Your task to perform on an android device: turn off priority inbox in the gmail app Image 0: 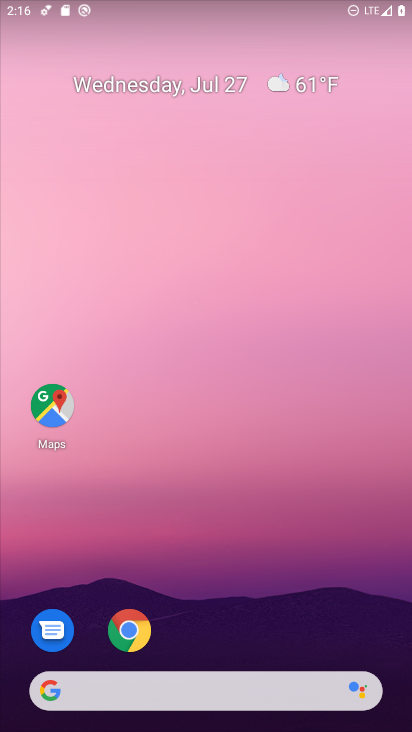
Step 0: drag from (240, 616) to (153, 4)
Your task to perform on an android device: turn off priority inbox in the gmail app Image 1: 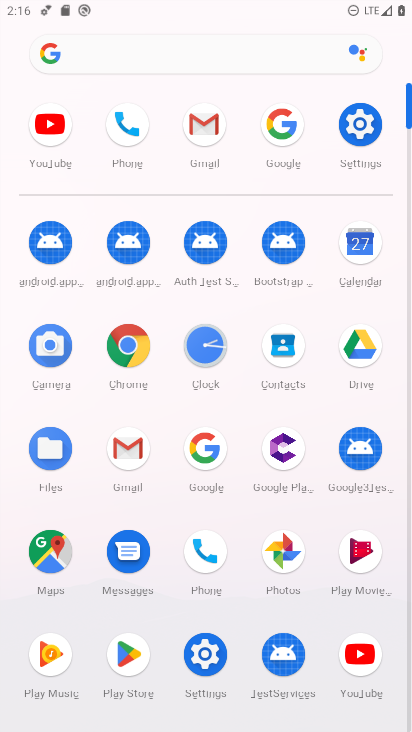
Step 1: click (200, 123)
Your task to perform on an android device: turn off priority inbox in the gmail app Image 2: 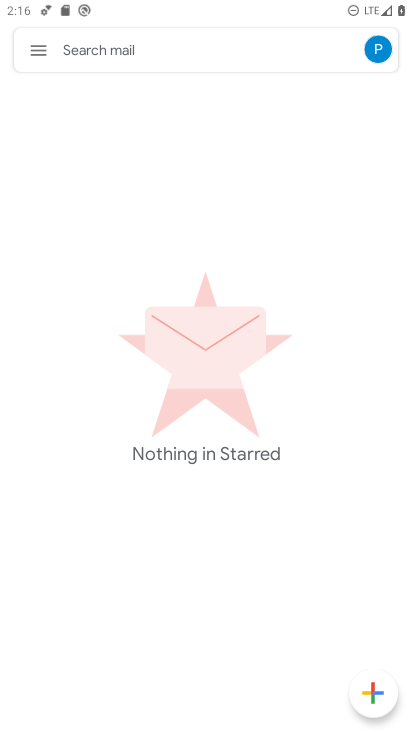
Step 2: click (41, 50)
Your task to perform on an android device: turn off priority inbox in the gmail app Image 3: 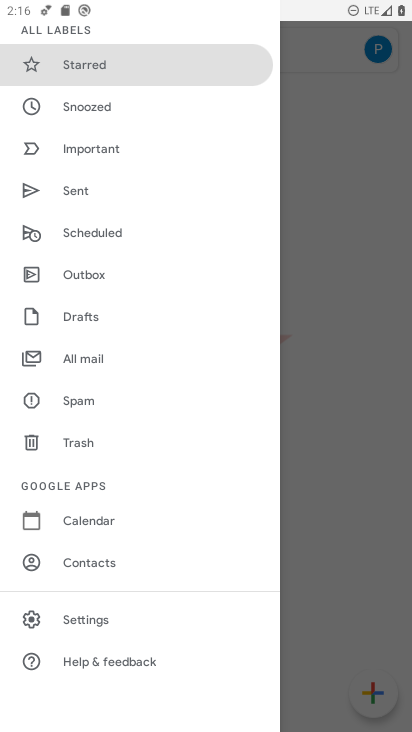
Step 3: click (118, 623)
Your task to perform on an android device: turn off priority inbox in the gmail app Image 4: 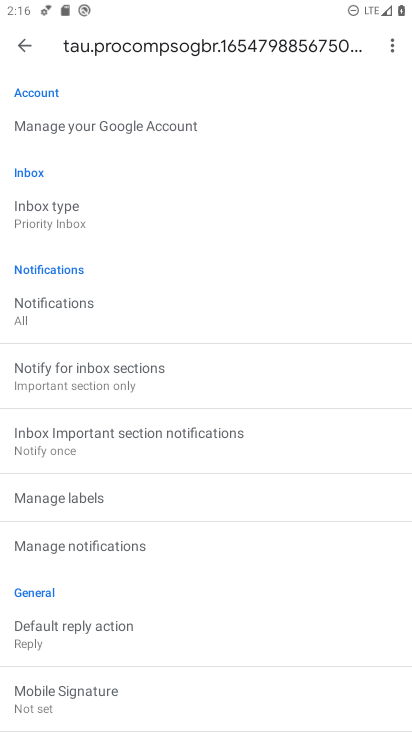
Step 4: click (31, 222)
Your task to perform on an android device: turn off priority inbox in the gmail app Image 5: 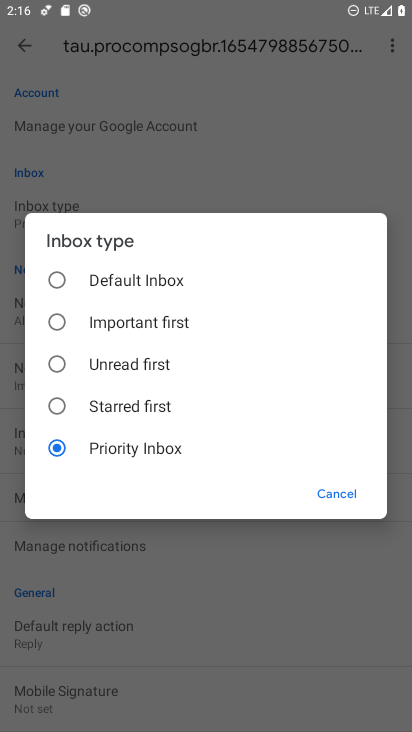
Step 5: click (61, 281)
Your task to perform on an android device: turn off priority inbox in the gmail app Image 6: 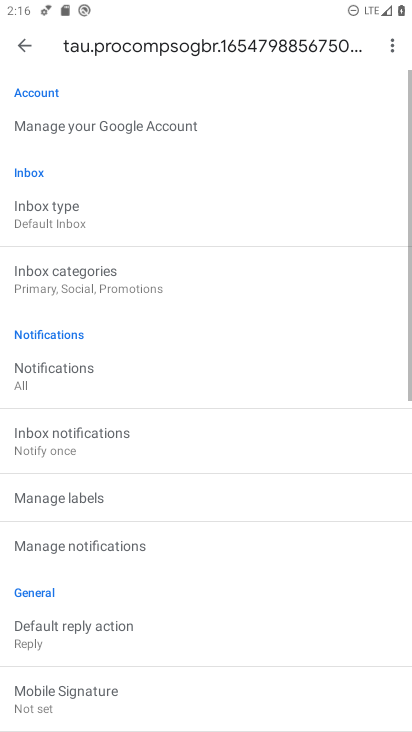
Step 6: task complete